Your task to perform on an android device: Open wifi settings Image 0: 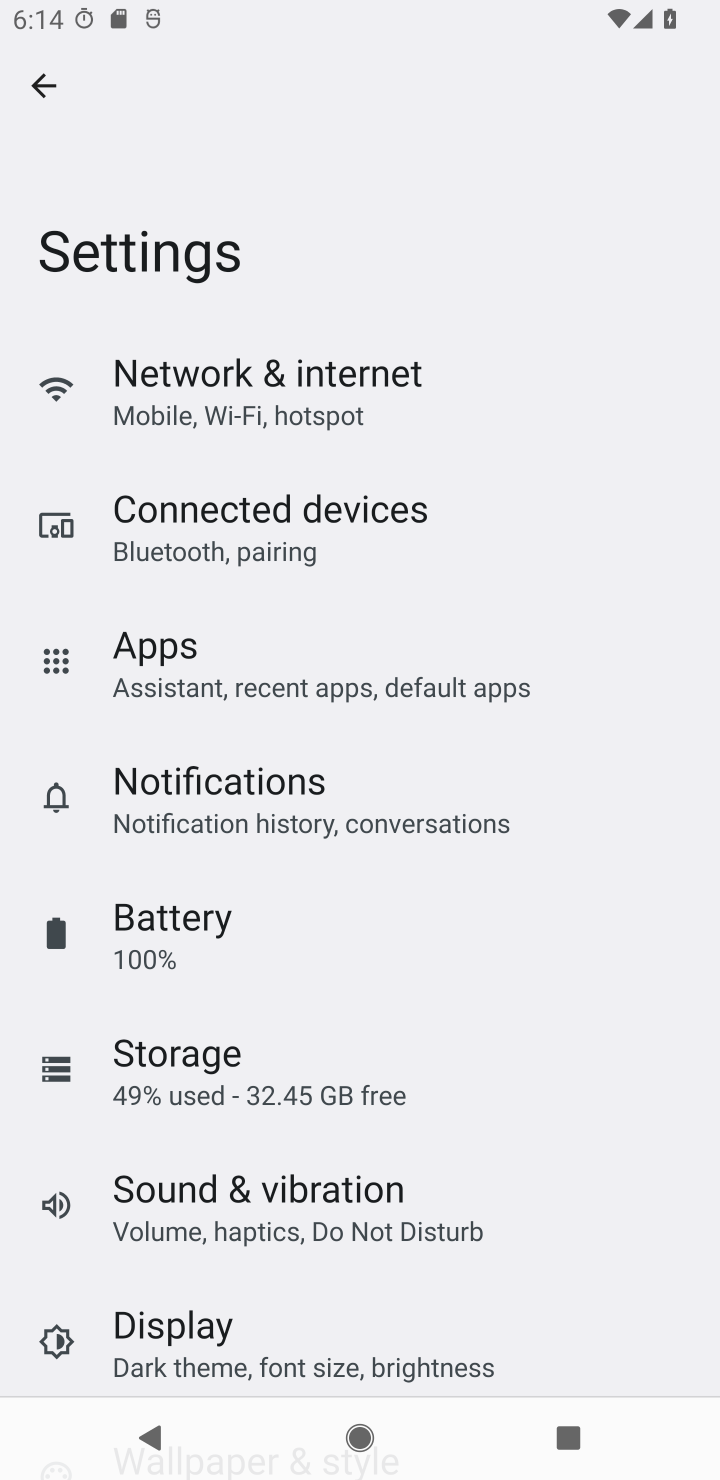
Step 0: click (260, 401)
Your task to perform on an android device: Open wifi settings Image 1: 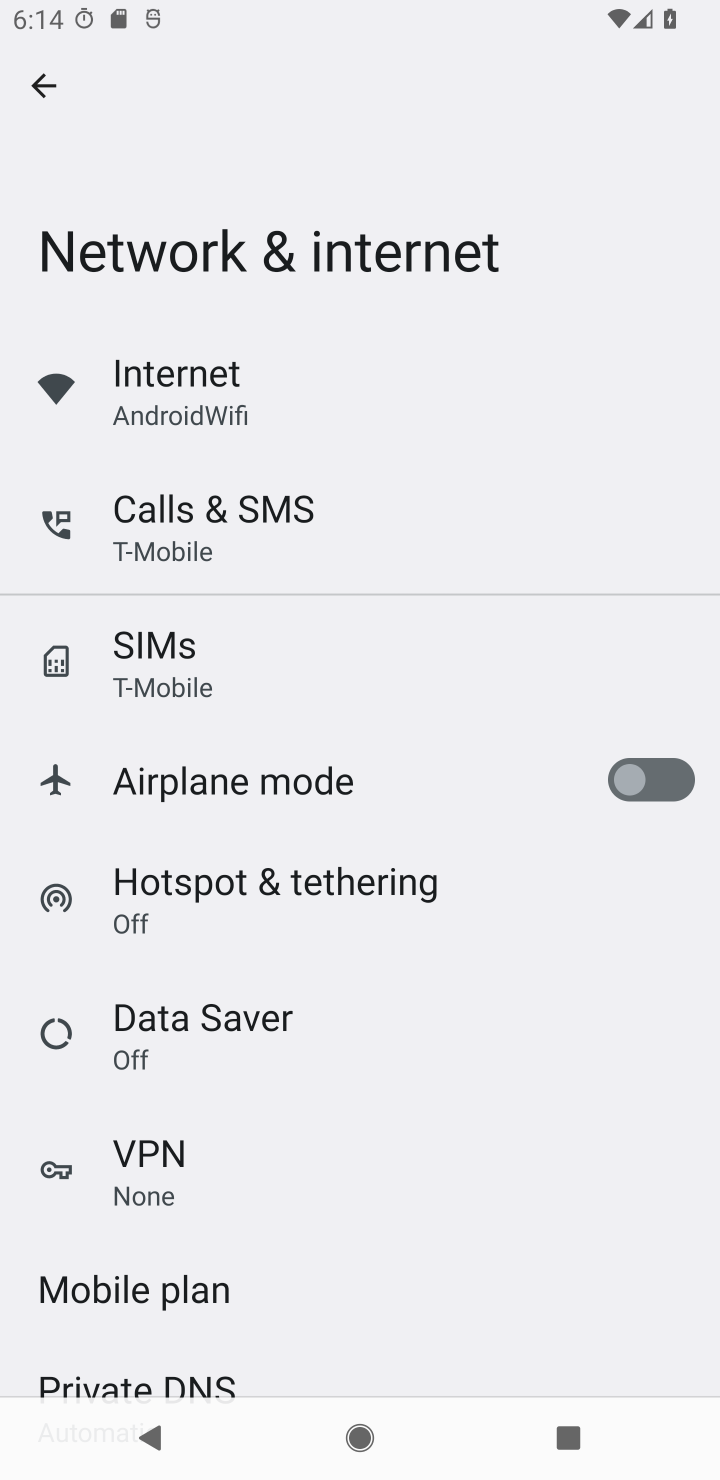
Step 1: click (209, 401)
Your task to perform on an android device: Open wifi settings Image 2: 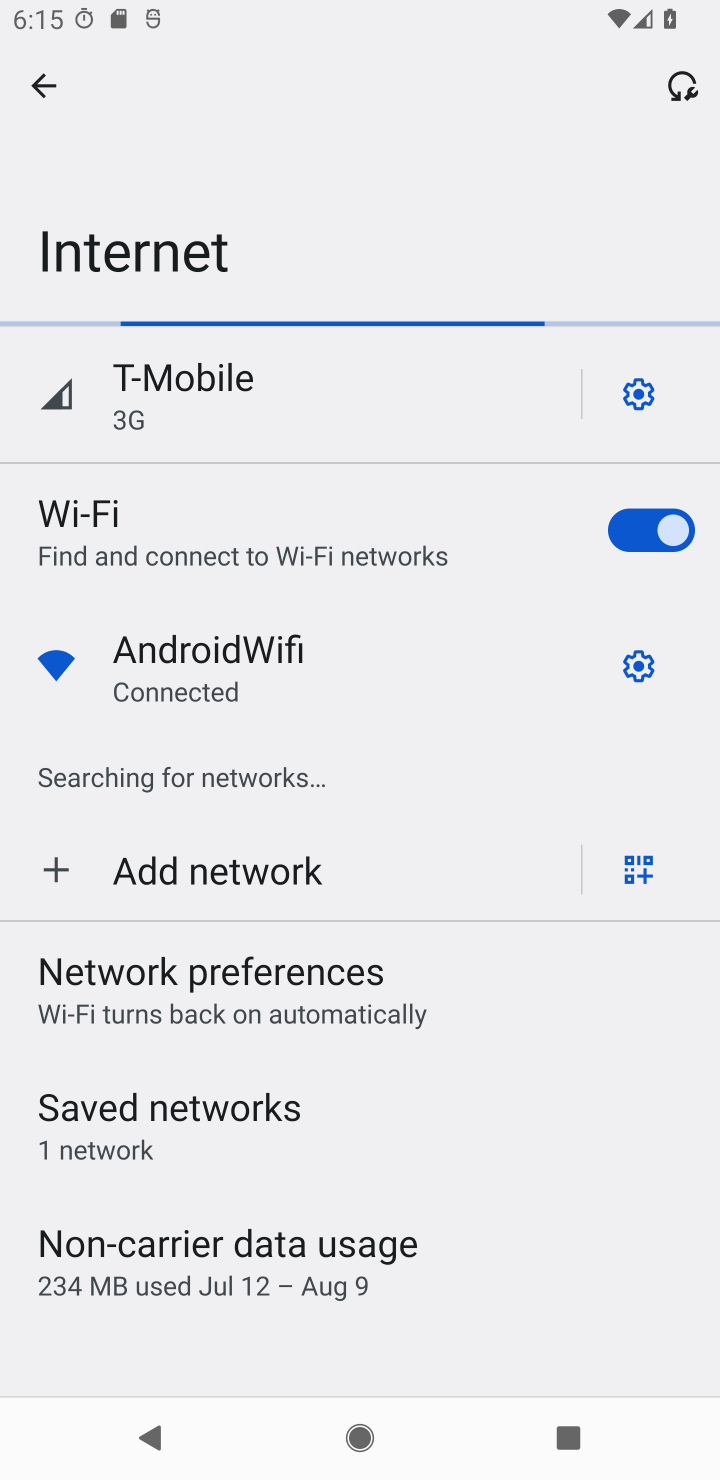
Step 2: task complete